Your task to perform on an android device: Show me productivity apps on the Play Store Image 0: 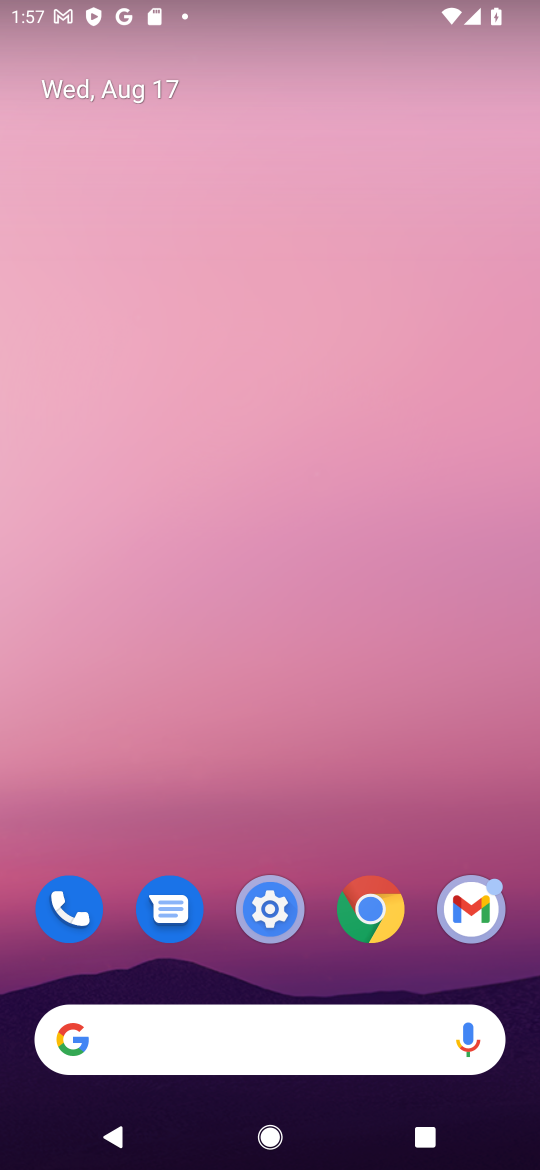
Step 0: drag from (245, 373) to (246, 270)
Your task to perform on an android device: Show me productivity apps on the Play Store Image 1: 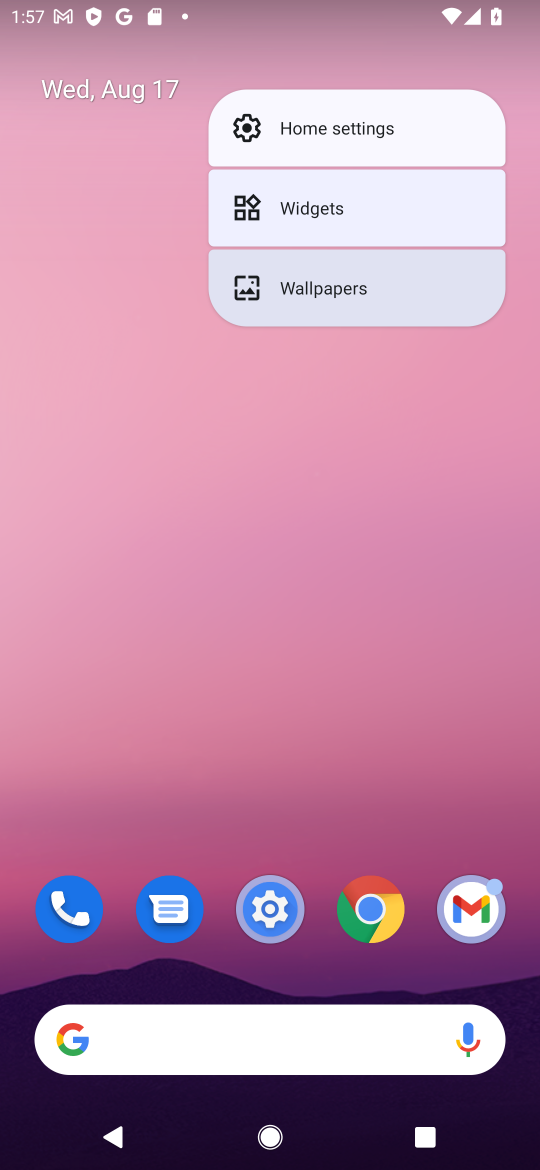
Step 1: click (290, 763)
Your task to perform on an android device: Show me productivity apps on the Play Store Image 2: 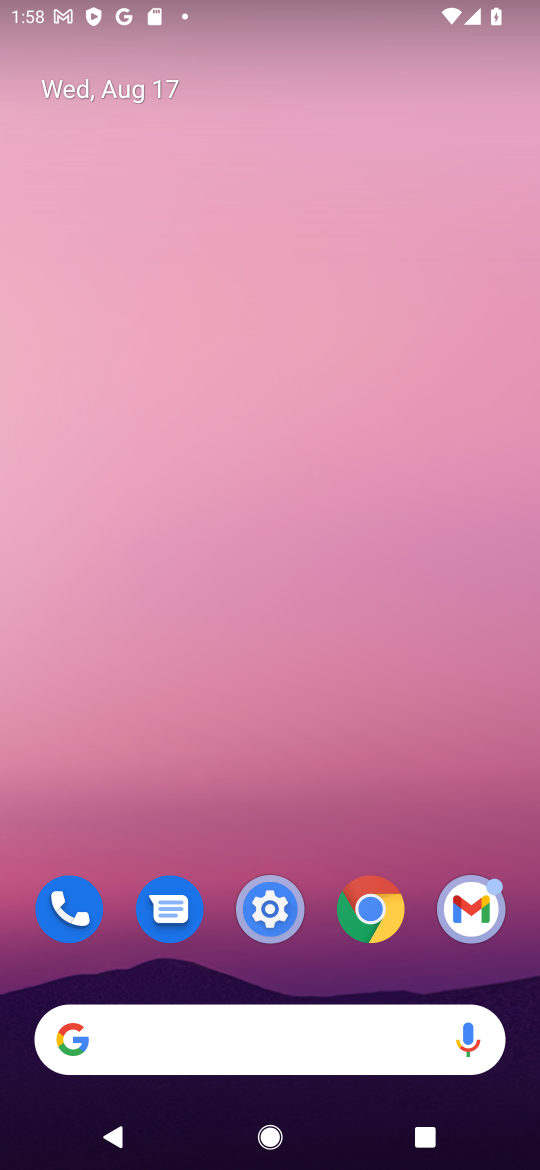
Step 2: drag from (224, 769) to (218, 434)
Your task to perform on an android device: Show me productivity apps on the Play Store Image 3: 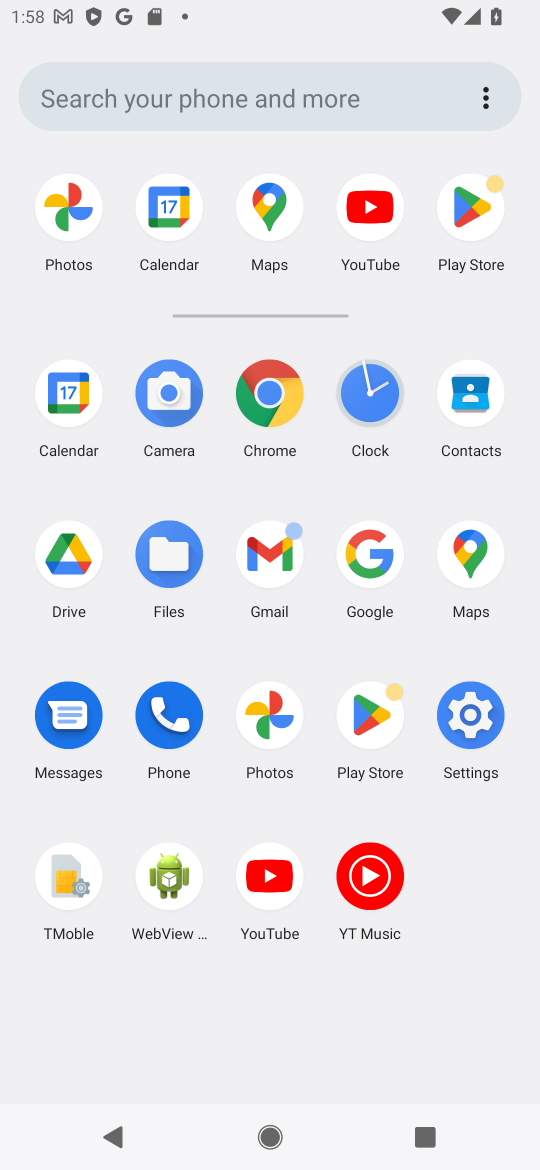
Step 3: click (454, 214)
Your task to perform on an android device: Show me productivity apps on the Play Store Image 4: 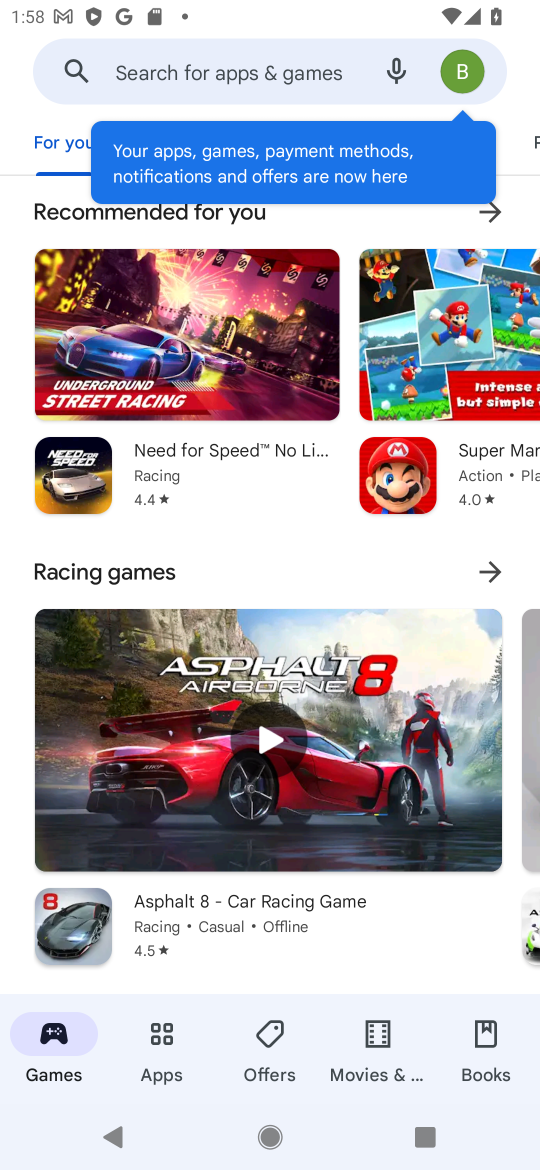
Step 4: task complete